Your task to perform on an android device: change the clock display to digital Image 0: 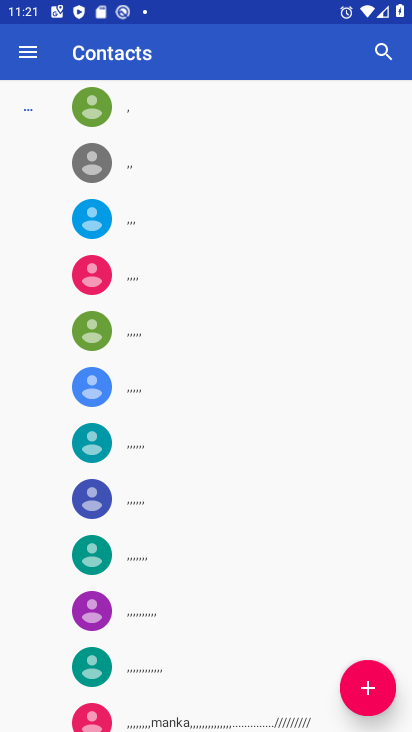
Step 0: press home button
Your task to perform on an android device: change the clock display to digital Image 1: 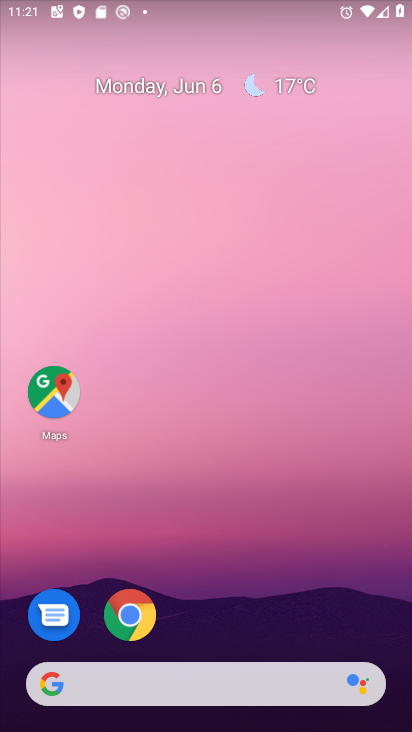
Step 1: drag from (235, 637) to (234, 243)
Your task to perform on an android device: change the clock display to digital Image 2: 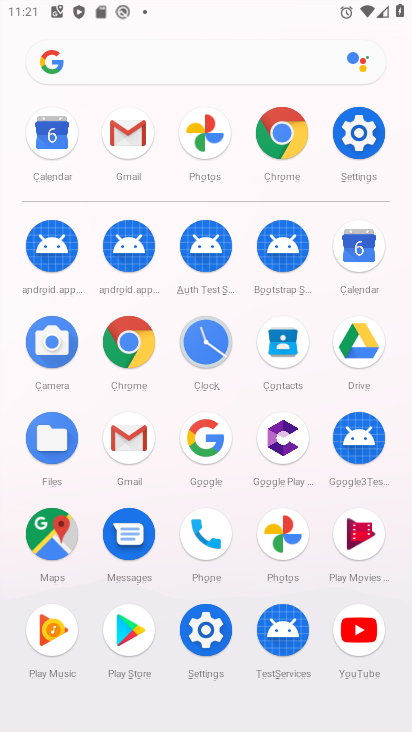
Step 2: click (205, 332)
Your task to perform on an android device: change the clock display to digital Image 3: 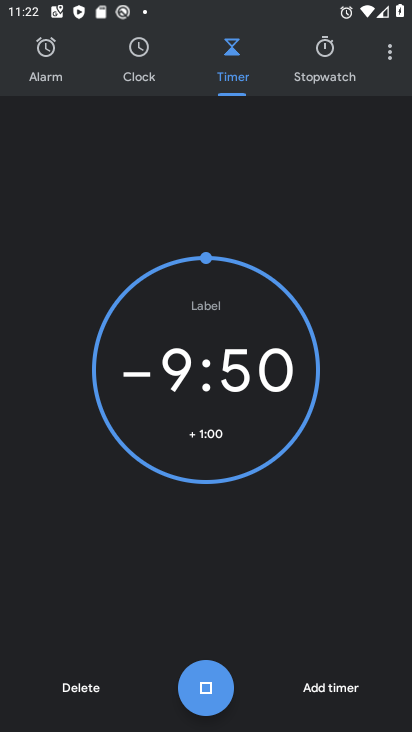
Step 3: click (76, 689)
Your task to perform on an android device: change the clock display to digital Image 4: 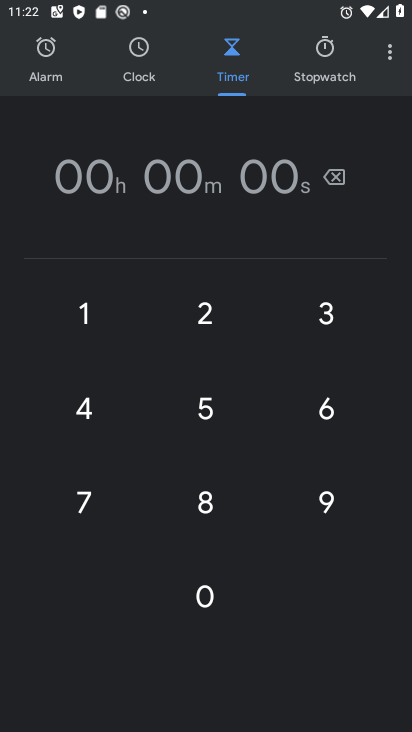
Step 4: click (393, 53)
Your task to perform on an android device: change the clock display to digital Image 5: 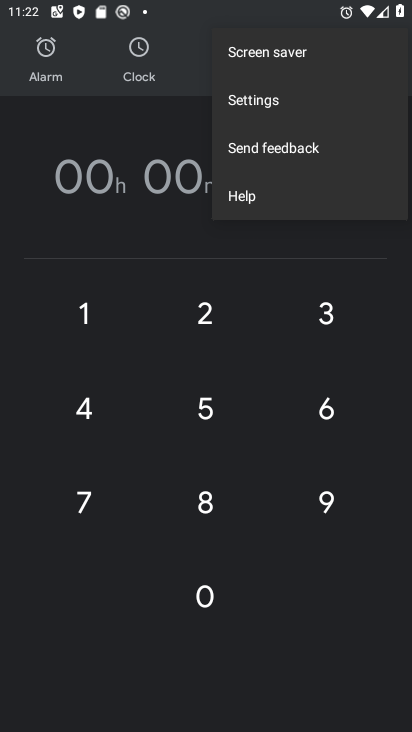
Step 5: click (297, 107)
Your task to perform on an android device: change the clock display to digital Image 6: 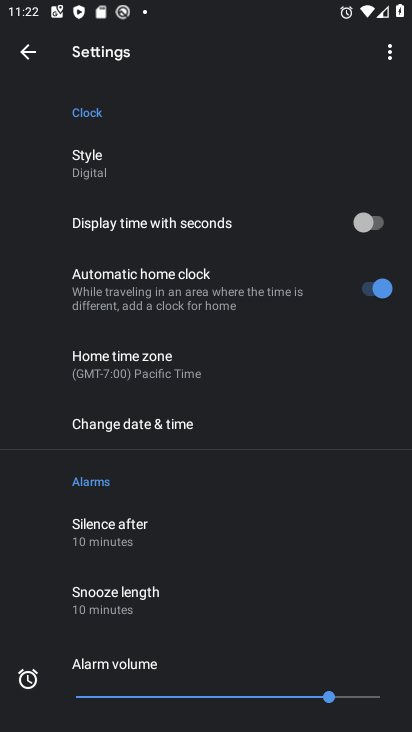
Step 6: click (123, 160)
Your task to perform on an android device: change the clock display to digital Image 7: 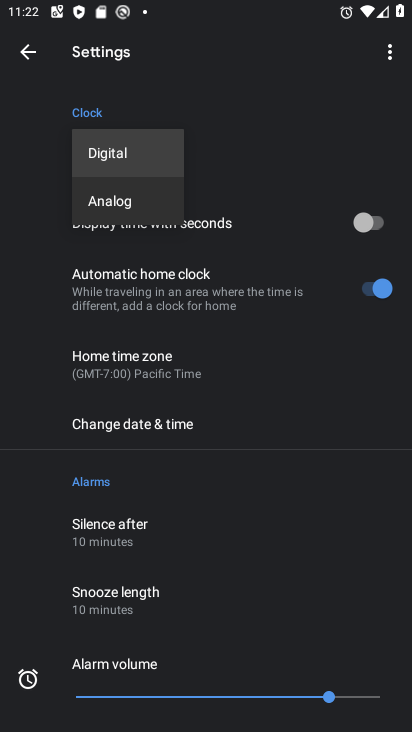
Step 7: click (141, 159)
Your task to perform on an android device: change the clock display to digital Image 8: 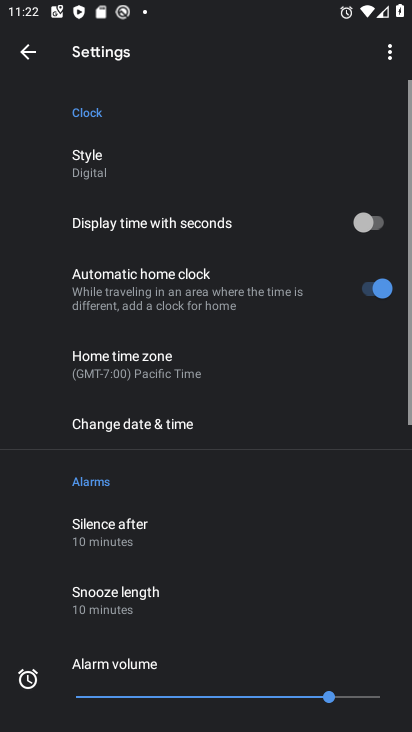
Step 8: task complete